Your task to perform on an android device: Go to settings Image 0: 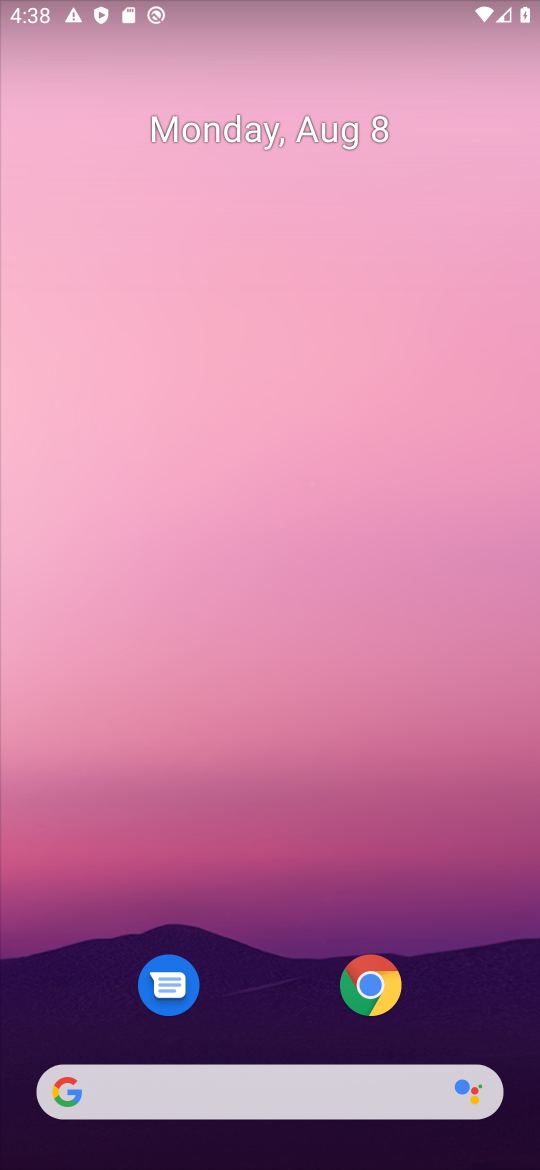
Step 0: drag from (256, 912) to (293, 152)
Your task to perform on an android device: Go to settings Image 1: 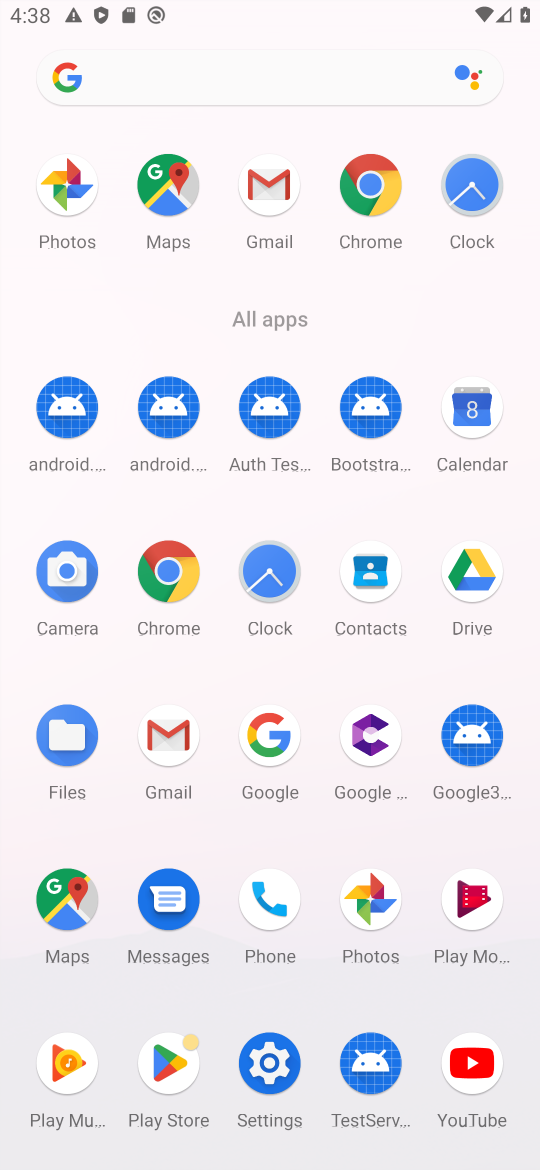
Step 1: click (270, 1067)
Your task to perform on an android device: Go to settings Image 2: 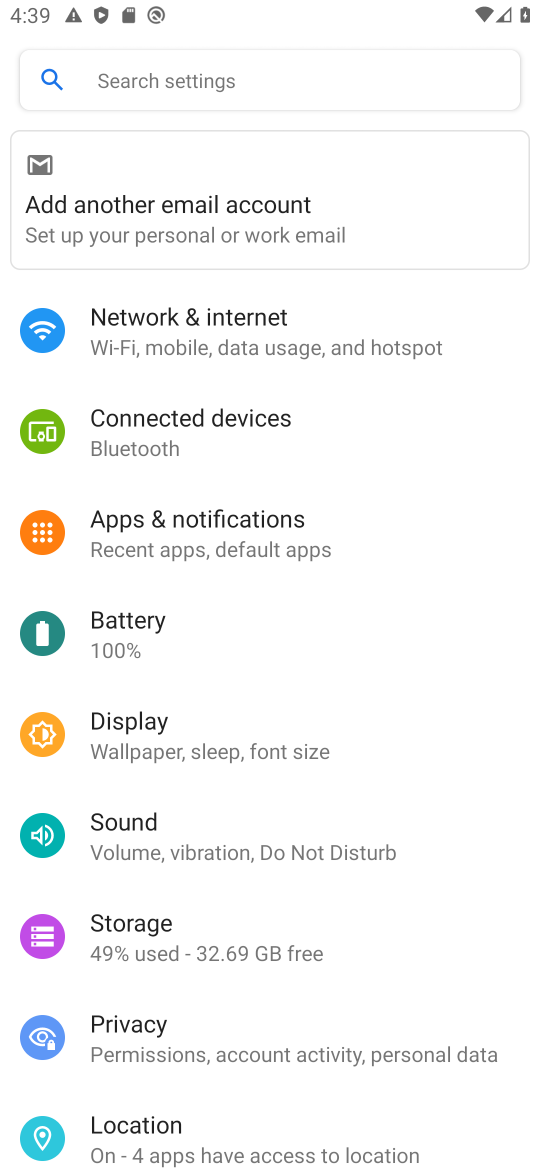
Step 2: task complete